Your task to perform on an android device: toggle notifications settings in the gmail app Image 0: 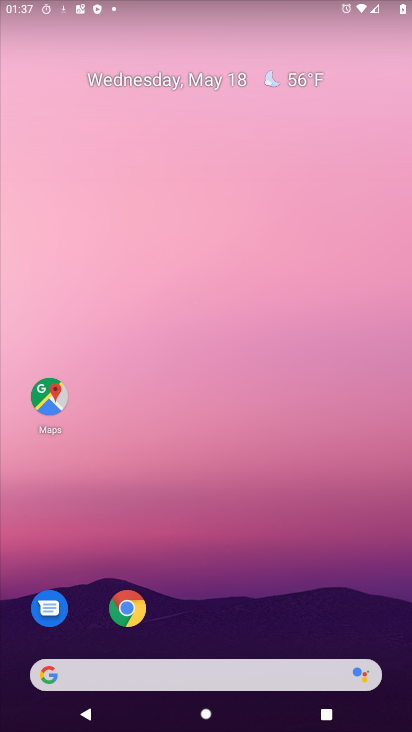
Step 0: press home button
Your task to perform on an android device: toggle notifications settings in the gmail app Image 1: 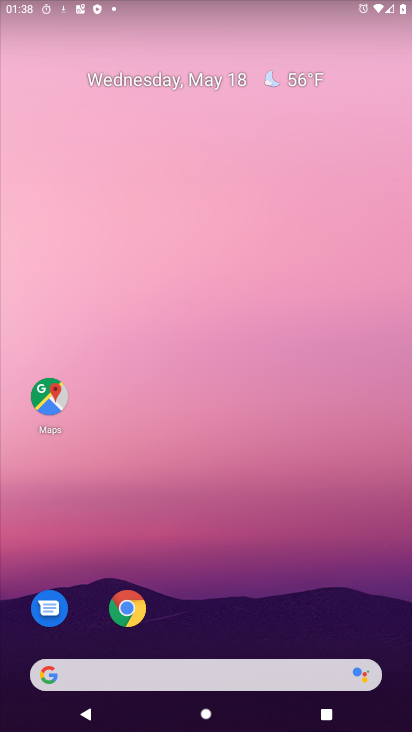
Step 1: drag from (306, 704) to (164, 216)
Your task to perform on an android device: toggle notifications settings in the gmail app Image 2: 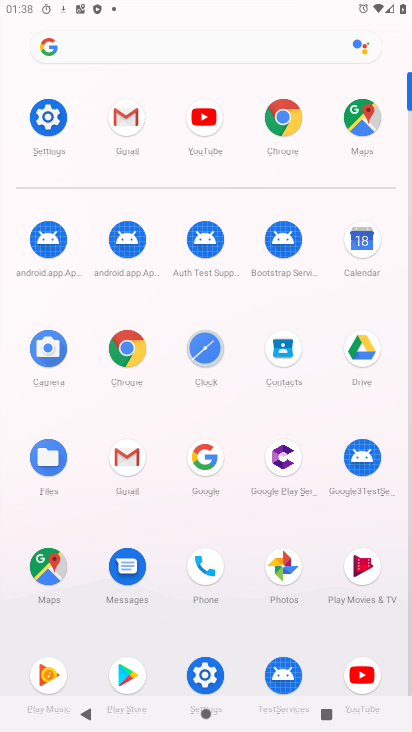
Step 2: click (136, 457)
Your task to perform on an android device: toggle notifications settings in the gmail app Image 3: 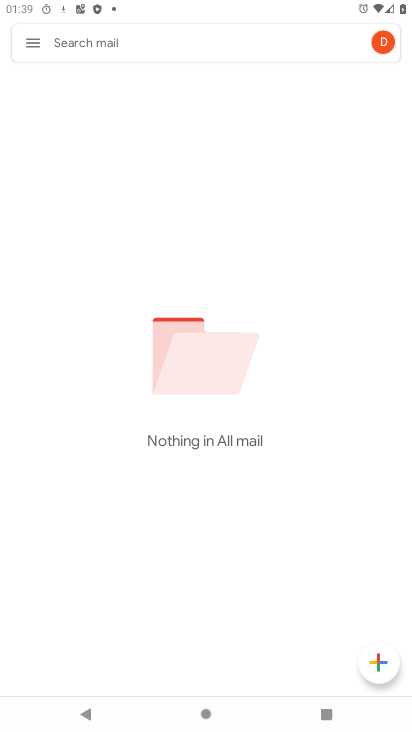
Step 3: click (31, 40)
Your task to perform on an android device: toggle notifications settings in the gmail app Image 4: 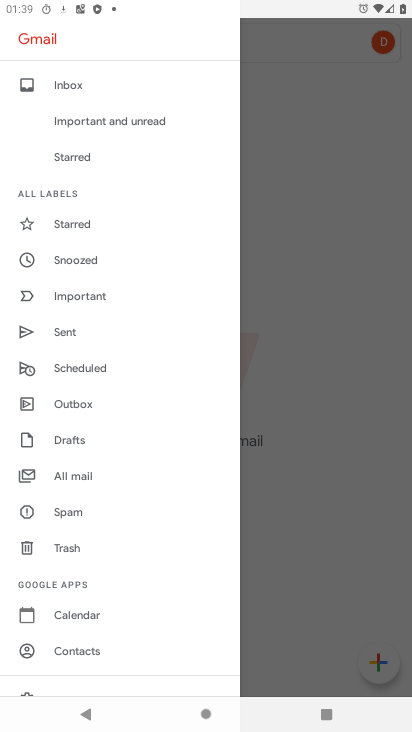
Step 4: drag from (106, 562) to (103, 427)
Your task to perform on an android device: toggle notifications settings in the gmail app Image 5: 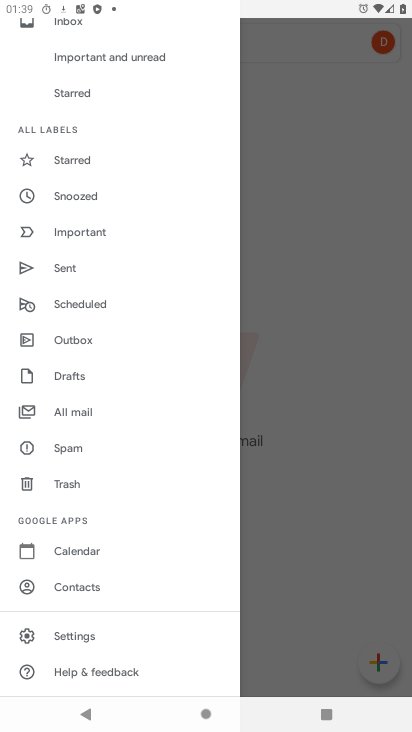
Step 5: click (98, 632)
Your task to perform on an android device: toggle notifications settings in the gmail app Image 6: 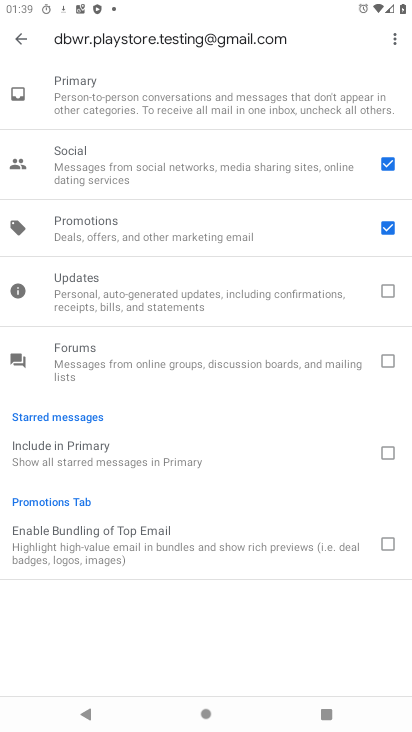
Step 6: click (17, 52)
Your task to perform on an android device: toggle notifications settings in the gmail app Image 7: 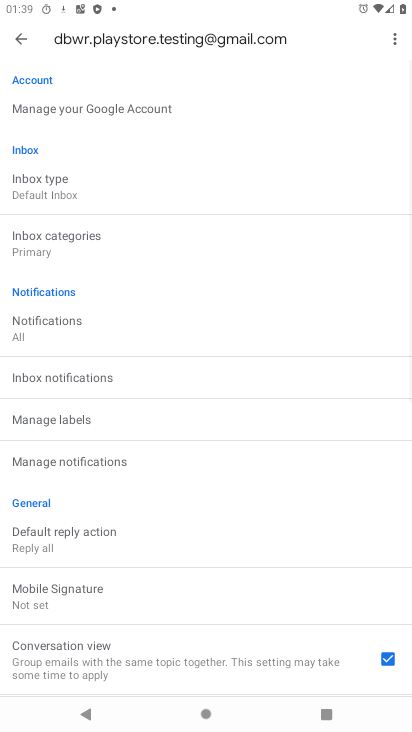
Step 7: click (86, 338)
Your task to perform on an android device: toggle notifications settings in the gmail app Image 8: 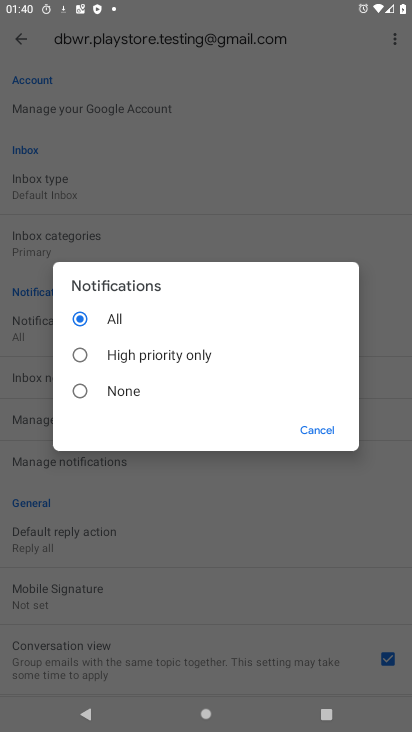
Step 8: task complete